Your task to perform on an android device: turn off priority inbox in the gmail app Image 0: 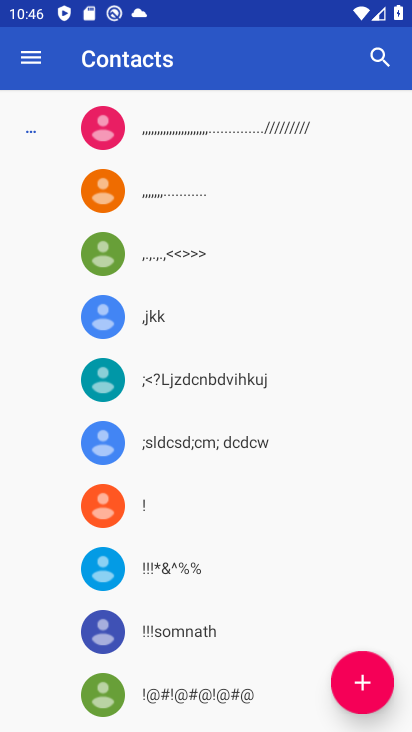
Step 0: press home button
Your task to perform on an android device: turn off priority inbox in the gmail app Image 1: 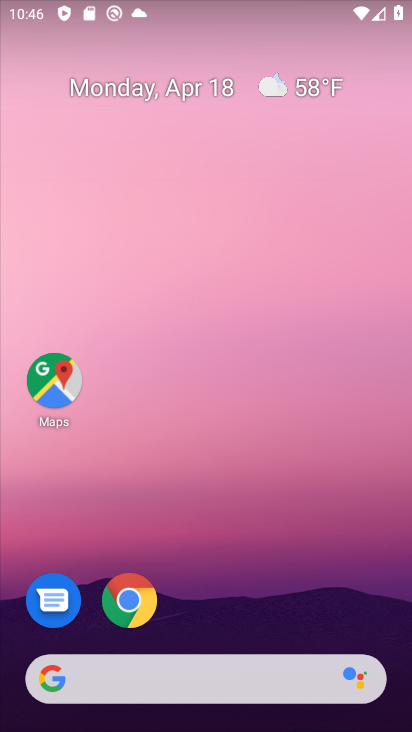
Step 1: drag from (218, 528) to (182, 121)
Your task to perform on an android device: turn off priority inbox in the gmail app Image 2: 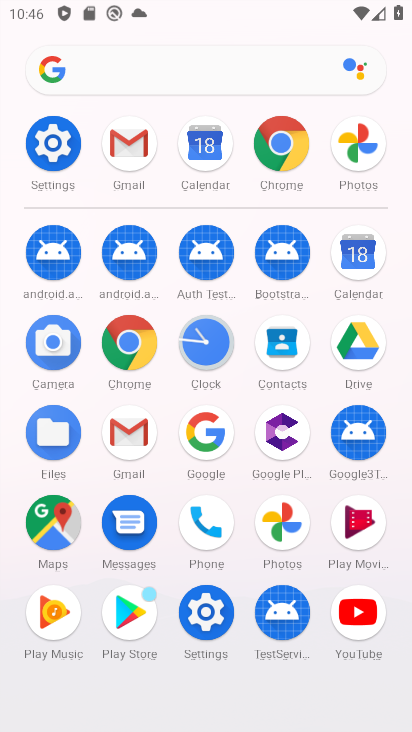
Step 2: click (123, 144)
Your task to perform on an android device: turn off priority inbox in the gmail app Image 3: 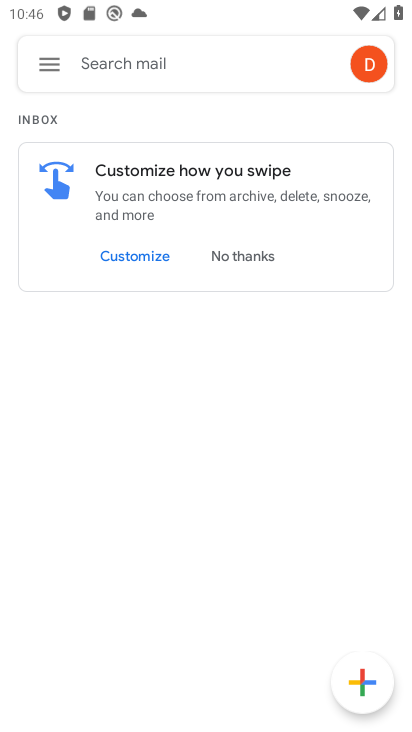
Step 3: click (46, 66)
Your task to perform on an android device: turn off priority inbox in the gmail app Image 4: 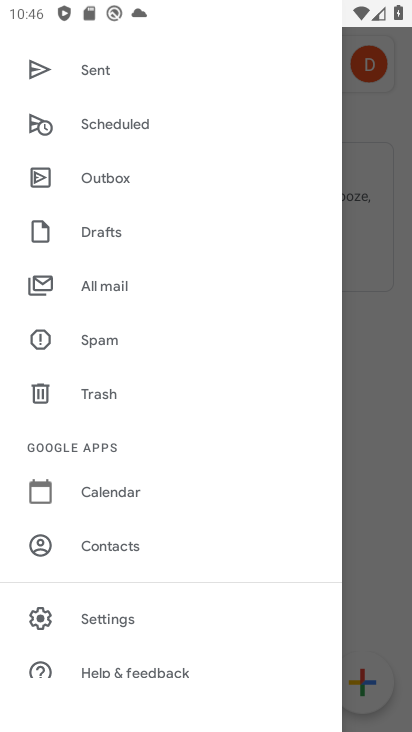
Step 4: click (112, 613)
Your task to perform on an android device: turn off priority inbox in the gmail app Image 5: 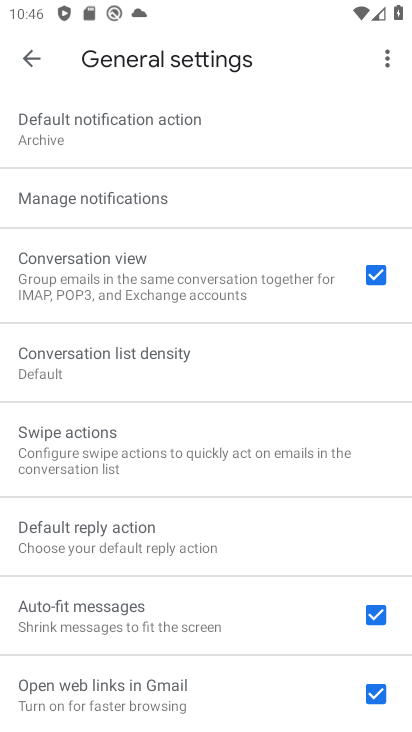
Step 5: click (29, 60)
Your task to perform on an android device: turn off priority inbox in the gmail app Image 6: 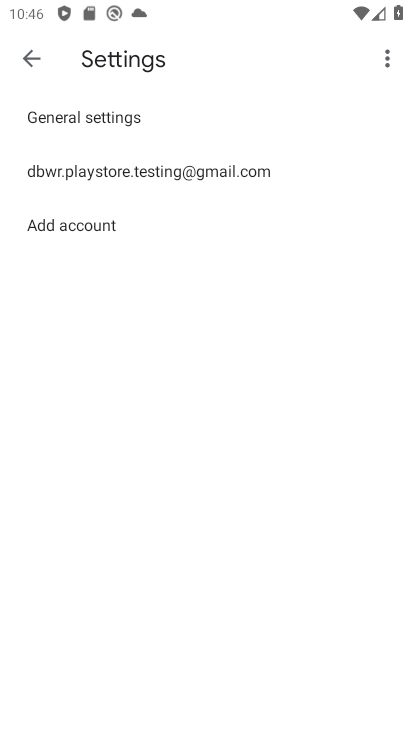
Step 6: click (131, 172)
Your task to perform on an android device: turn off priority inbox in the gmail app Image 7: 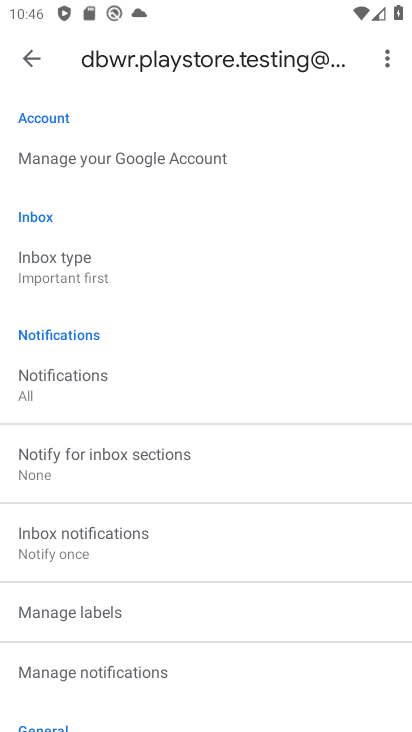
Step 7: click (69, 270)
Your task to perform on an android device: turn off priority inbox in the gmail app Image 8: 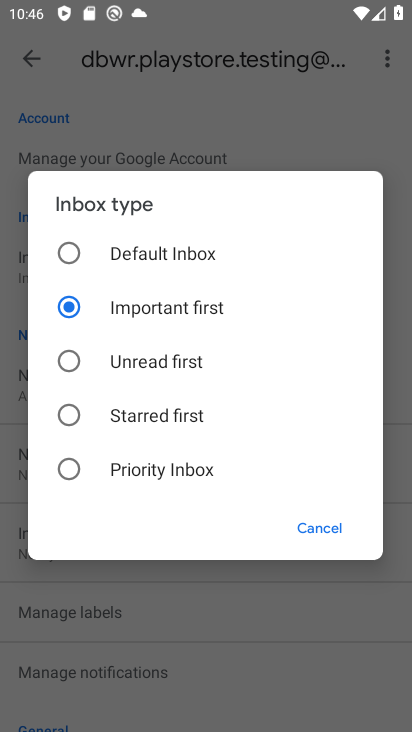
Step 8: task complete